Your task to perform on an android device: Open Chrome and go to settings Image 0: 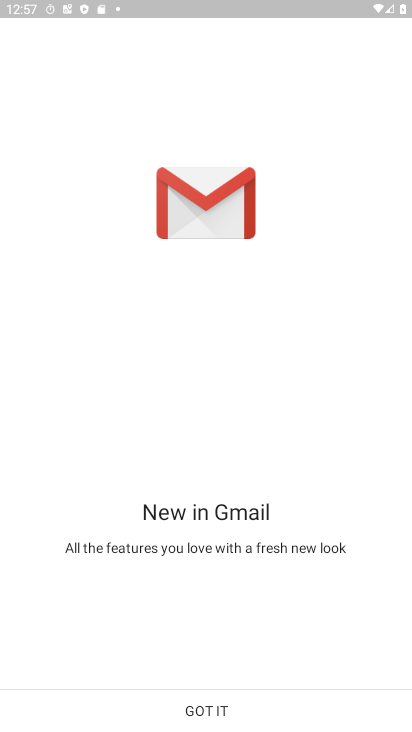
Step 0: press home button
Your task to perform on an android device: Open Chrome and go to settings Image 1: 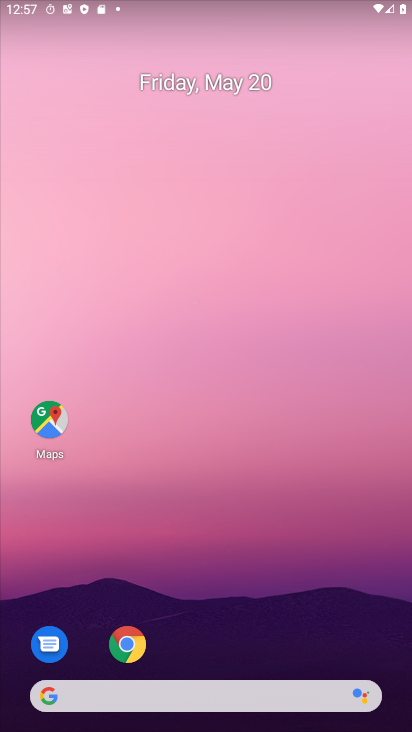
Step 1: drag from (319, 583) to (352, 91)
Your task to perform on an android device: Open Chrome and go to settings Image 2: 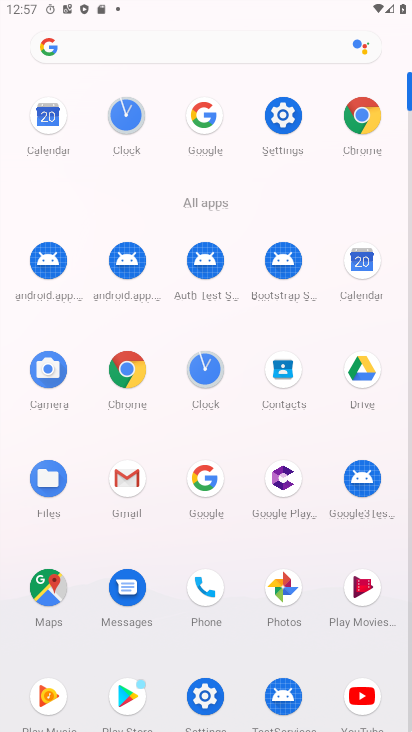
Step 2: click (352, 129)
Your task to perform on an android device: Open Chrome and go to settings Image 3: 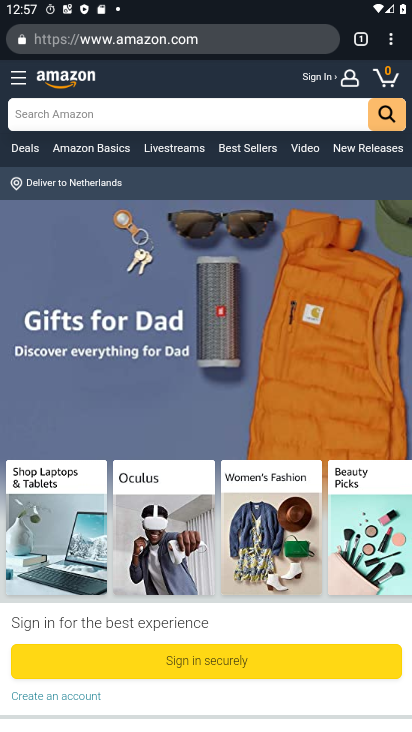
Step 3: task complete